Your task to perform on an android device: Show me the alarms in the clock app Image 0: 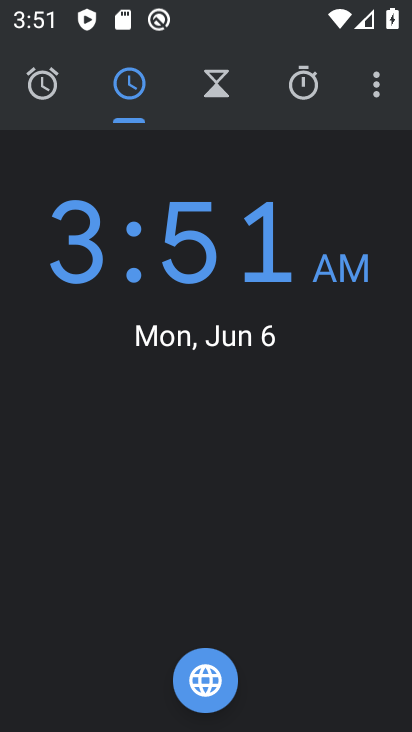
Step 0: click (42, 87)
Your task to perform on an android device: Show me the alarms in the clock app Image 1: 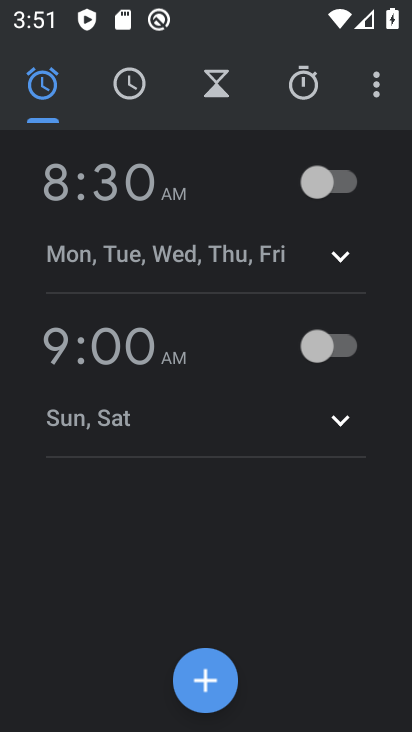
Step 1: task complete